Your task to perform on an android device: turn pop-ups off in chrome Image 0: 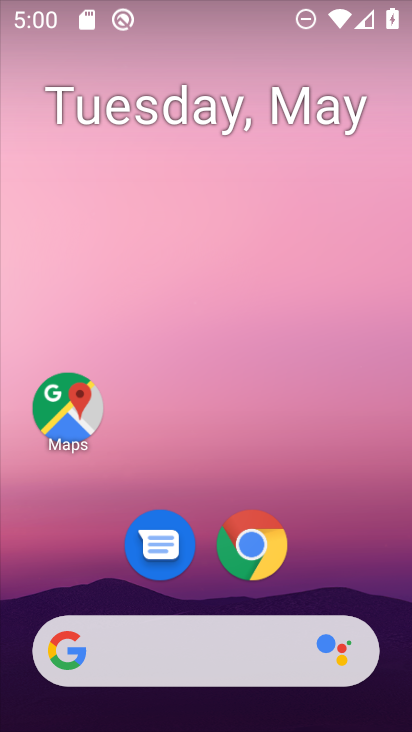
Step 0: drag from (350, 560) to (279, 43)
Your task to perform on an android device: turn pop-ups off in chrome Image 1: 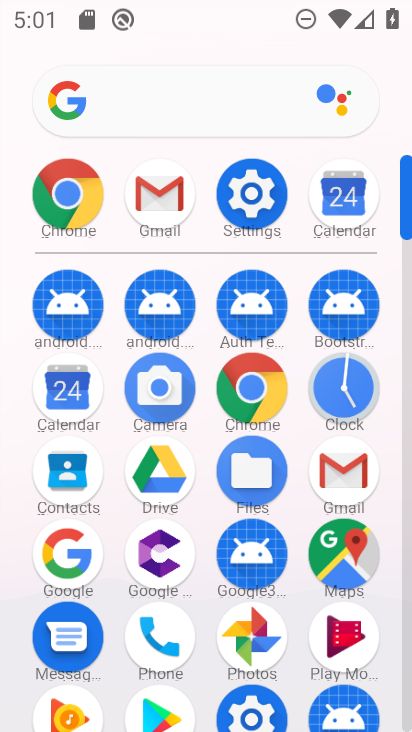
Step 1: click (70, 181)
Your task to perform on an android device: turn pop-ups off in chrome Image 2: 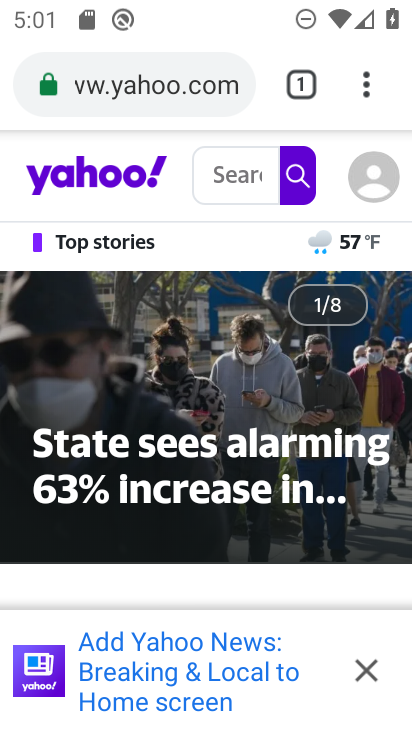
Step 2: drag from (364, 105) to (104, 608)
Your task to perform on an android device: turn pop-ups off in chrome Image 3: 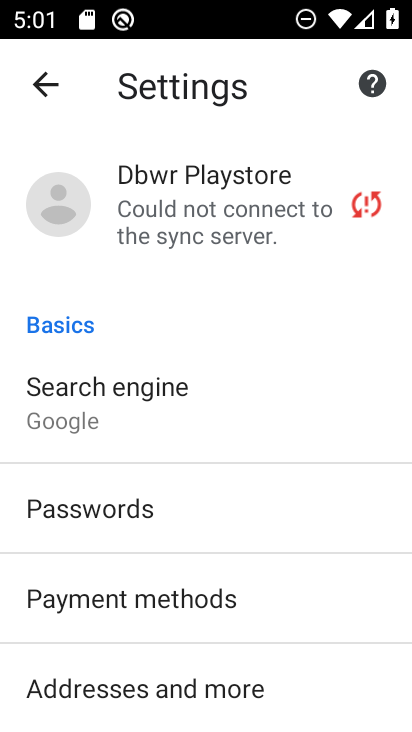
Step 3: drag from (262, 630) to (250, 286)
Your task to perform on an android device: turn pop-ups off in chrome Image 4: 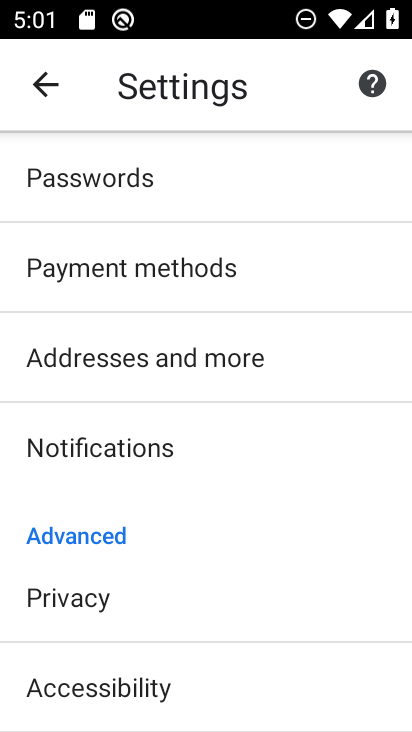
Step 4: drag from (201, 559) to (214, 205)
Your task to perform on an android device: turn pop-ups off in chrome Image 5: 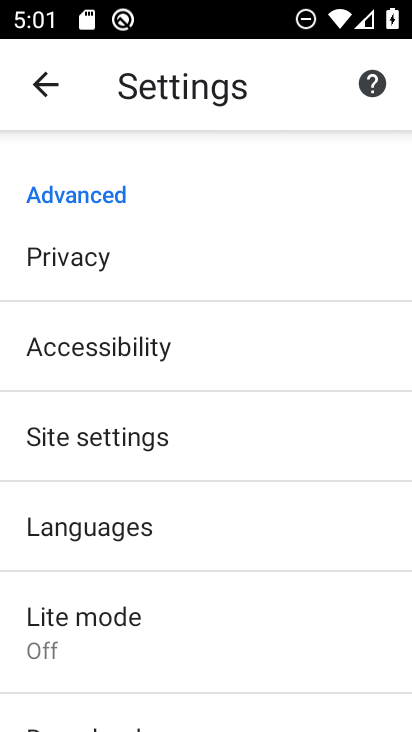
Step 5: click (152, 451)
Your task to perform on an android device: turn pop-ups off in chrome Image 6: 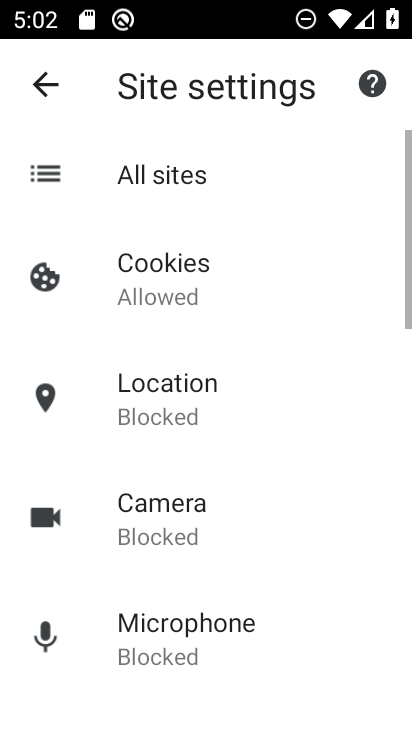
Step 6: drag from (259, 635) to (259, 227)
Your task to perform on an android device: turn pop-ups off in chrome Image 7: 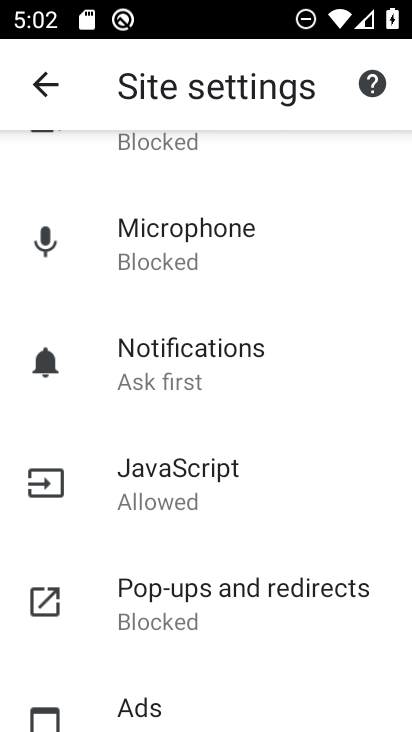
Step 7: drag from (270, 561) to (284, 416)
Your task to perform on an android device: turn pop-ups off in chrome Image 8: 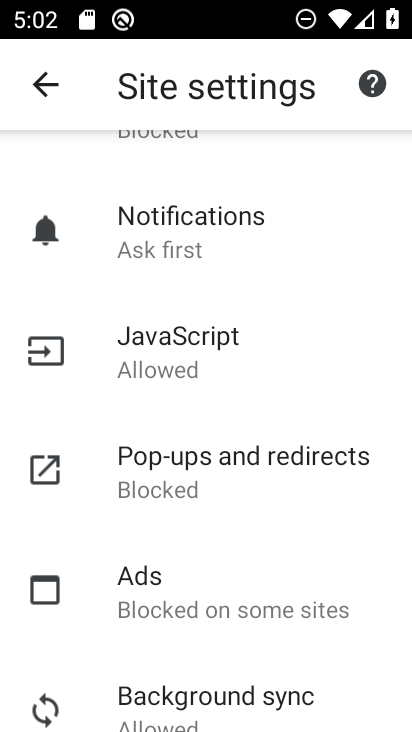
Step 8: click (226, 452)
Your task to perform on an android device: turn pop-ups off in chrome Image 9: 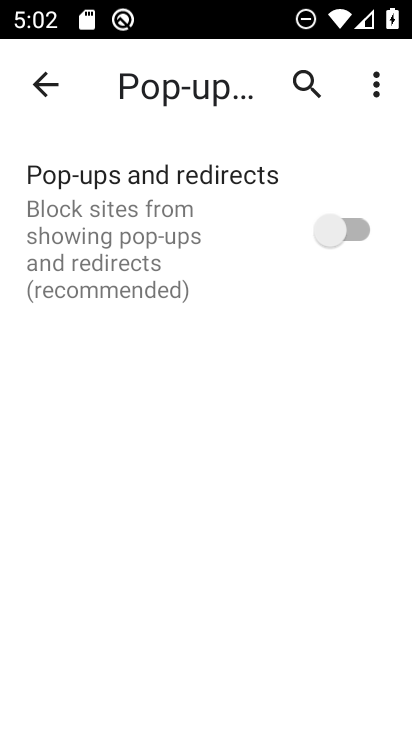
Step 9: task complete